Your task to perform on an android device: Go to Wikipedia Image 0: 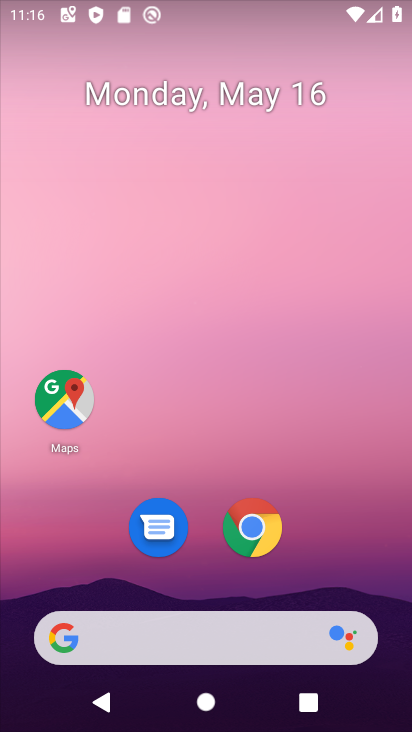
Step 0: press home button
Your task to perform on an android device: Go to Wikipedia Image 1: 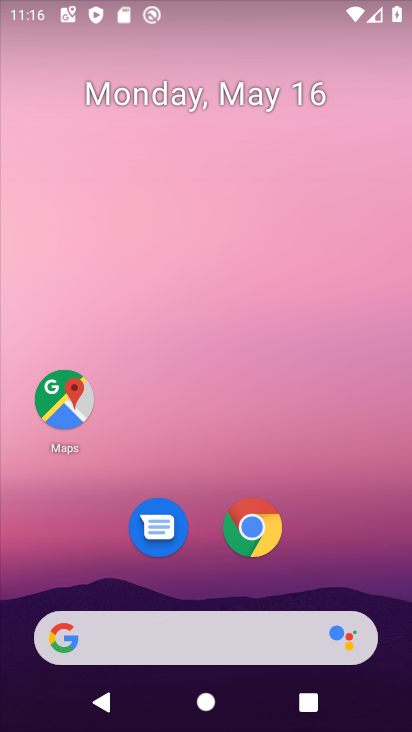
Step 1: drag from (221, 657) to (222, 326)
Your task to perform on an android device: Go to Wikipedia Image 2: 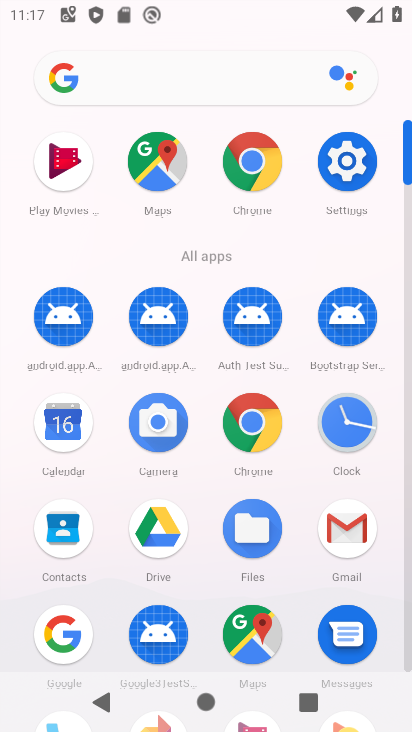
Step 2: click (241, 196)
Your task to perform on an android device: Go to Wikipedia Image 3: 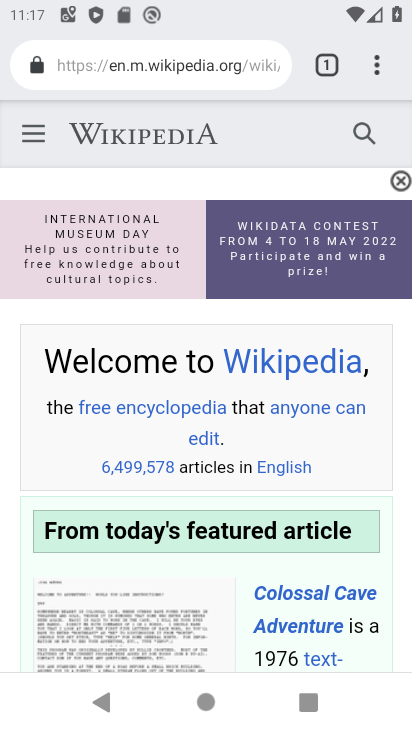
Step 3: click (373, 88)
Your task to perform on an android device: Go to Wikipedia Image 4: 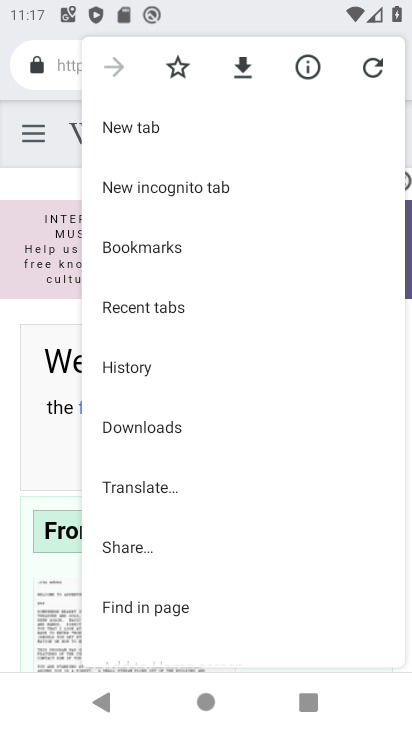
Step 4: click (158, 127)
Your task to perform on an android device: Go to Wikipedia Image 5: 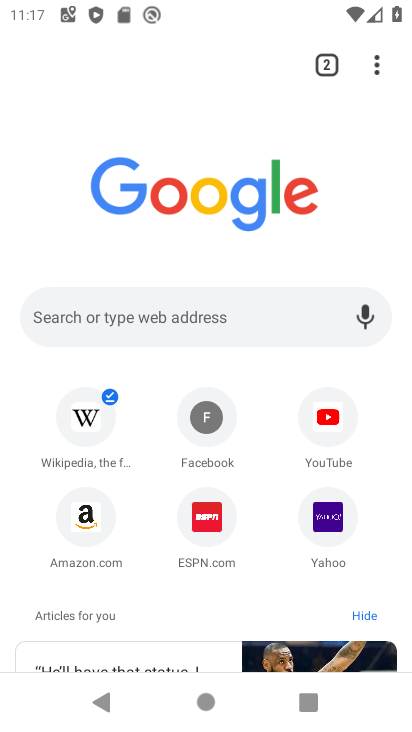
Step 5: click (80, 422)
Your task to perform on an android device: Go to Wikipedia Image 6: 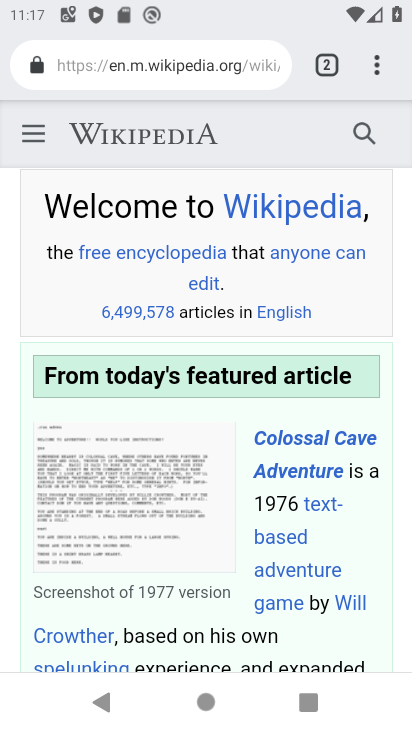
Step 6: task complete